Your task to perform on an android device: Open the calendar app, open the side menu, and click the "Day" option Image 0: 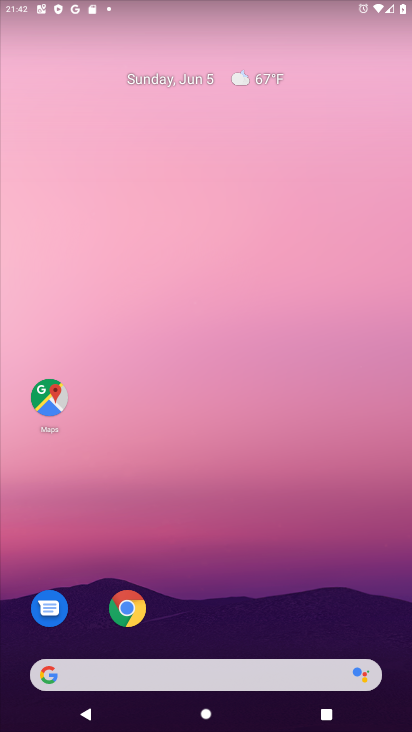
Step 0: press home button
Your task to perform on an android device: Open the calendar app, open the side menu, and click the "Day" option Image 1: 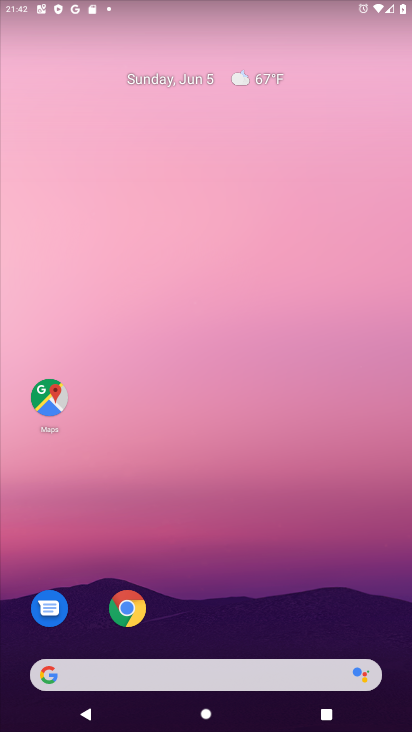
Step 1: drag from (65, 531) to (331, 72)
Your task to perform on an android device: Open the calendar app, open the side menu, and click the "Day" option Image 2: 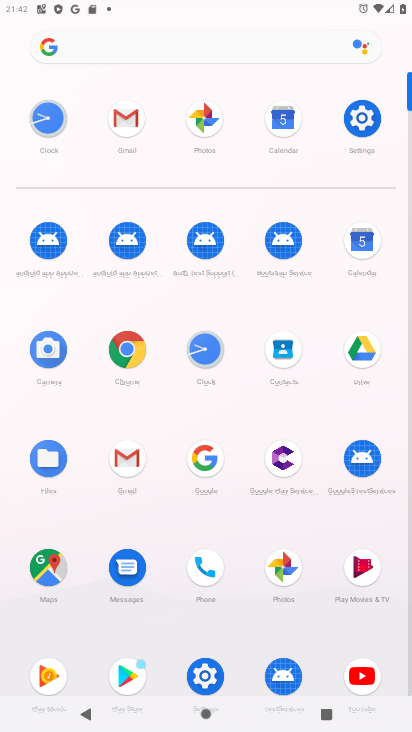
Step 2: click (358, 244)
Your task to perform on an android device: Open the calendar app, open the side menu, and click the "Day" option Image 3: 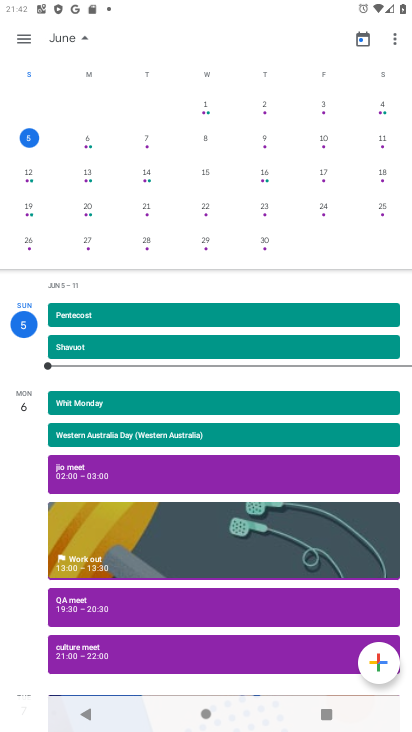
Step 3: click (19, 39)
Your task to perform on an android device: Open the calendar app, open the side menu, and click the "Day" option Image 4: 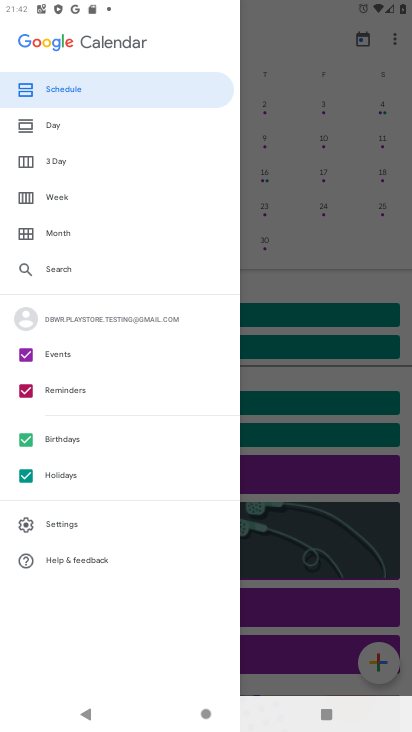
Step 4: click (78, 139)
Your task to perform on an android device: Open the calendar app, open the side menu, and click the "Day" option Image 5: 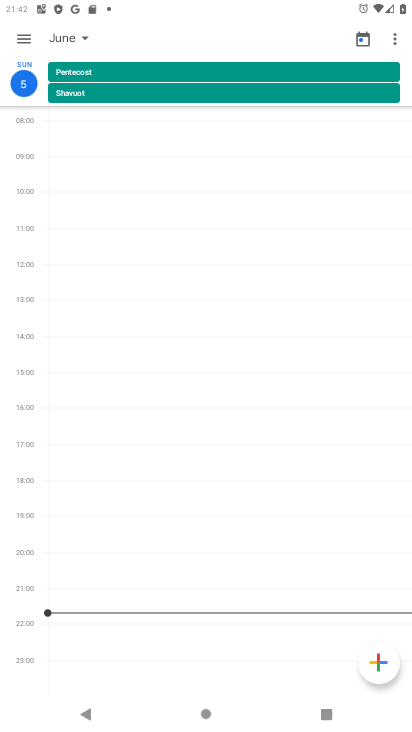
Step 5: task complete